Your task to perform on an android device: open sync settings in chrome Image 0: 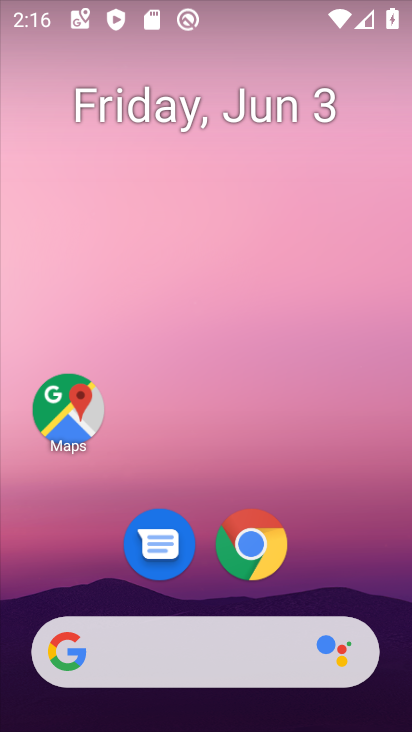
Step 0: drag from (307, 559) to (308, 231)
Your task to perform on an android device: open sync settings in chrome Image 1: 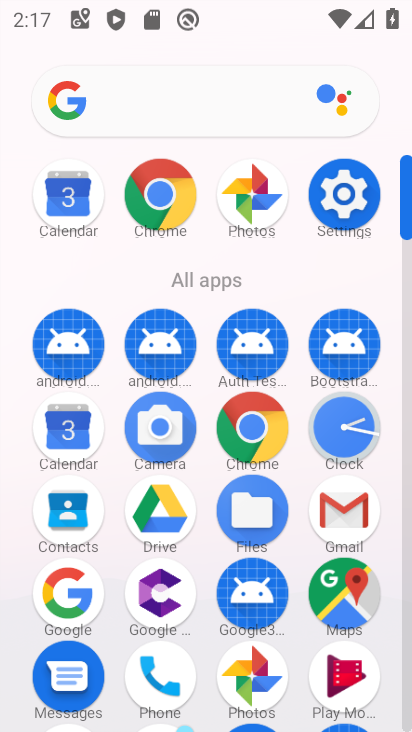
Step 1: click (233, 423)
Your task to perform on an android device: open sync settings in chrome Image 2: 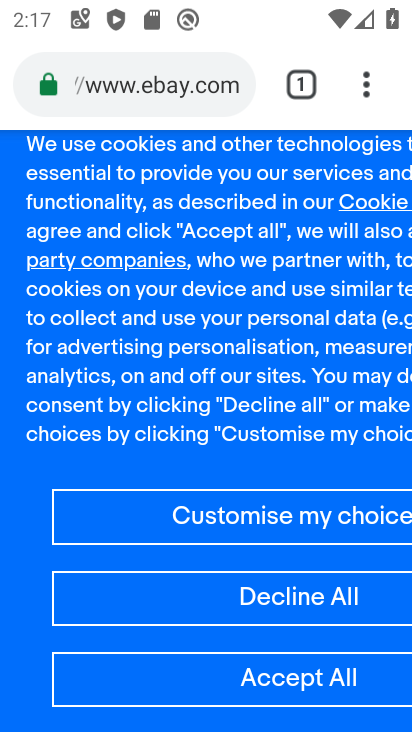
Step 2: task complete